Your task to perform on an android device: Is it going to rain today? Image 0: 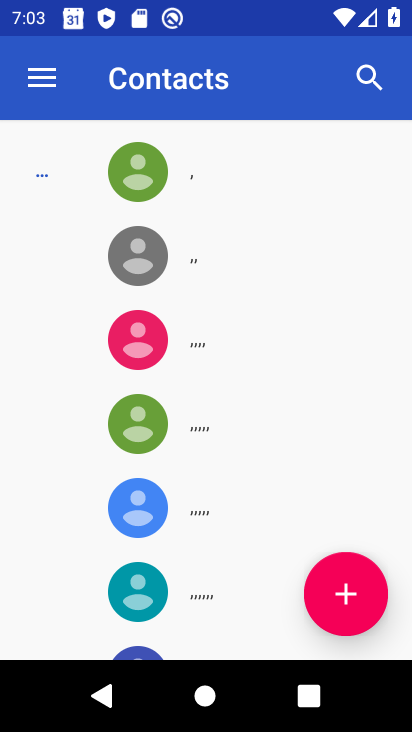
Step 0: press home button
Your task to perform on an android device: Is it going to rain today? Image 1: 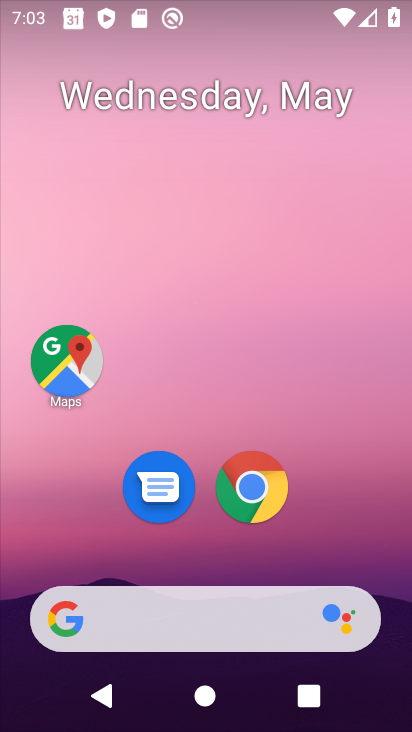
Step 1: click (46, 635)
Your task to perform on an android device: Is it going to rain today? Image 2: 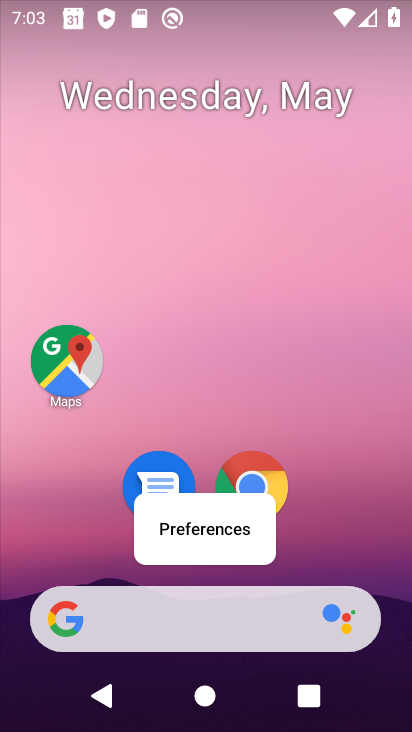
Step 2: click (51, 603)
Your task to perform on an android device: Is it going to rain today? Image 3: 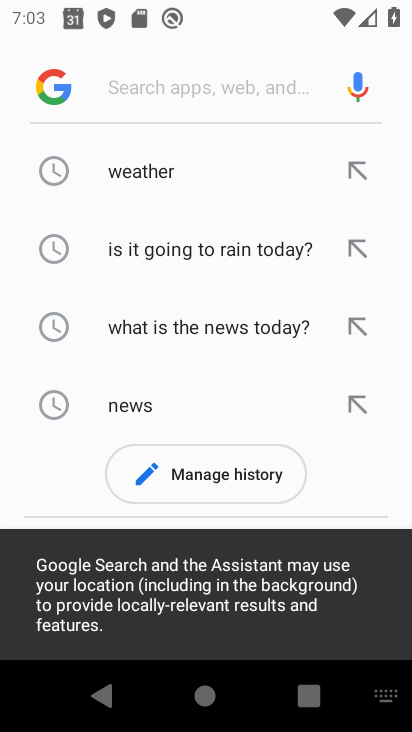
Step 3: click (82, 97)
Your task to perform on an android device: Is it going to rain today? Image 4: 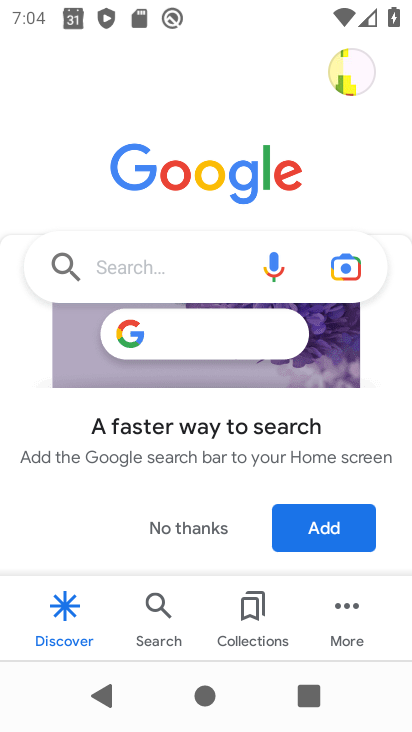
Step 4: drag from (372, 457) to (371, 323)
Your task to perform on an android device: Is it going to rain today? Image 5: 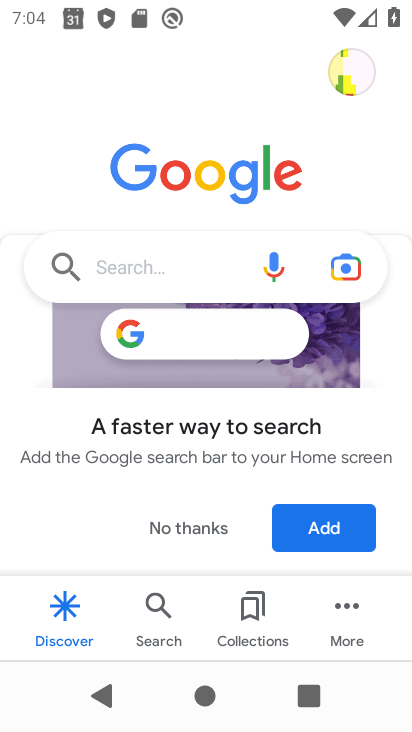
Step 5: drag from (392, 446) to (383, 310)
Your task to perform on an android device: Is it going to rain today? Image 6: 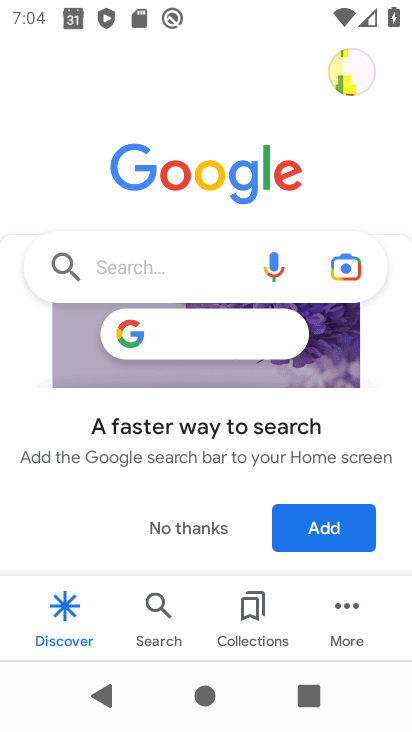
Step 6: click (210, 531)
Your task to perform on an android device: Is it going to rain today? Image 7: 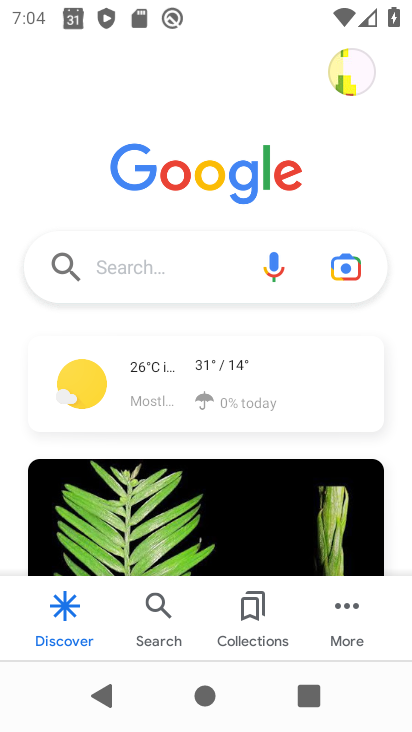
Step 7: click (233, 388)
Your task to perform on an android device: Is it going to rain today? Image 8: 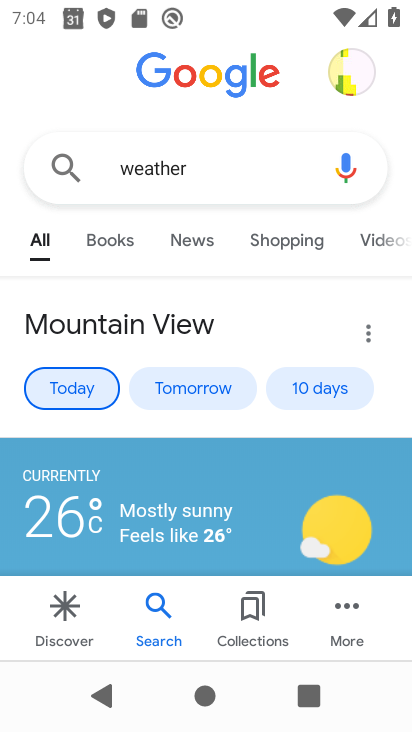
Step 8: click (336, 266)
Your task to perform on an android device: Is it going to rain today? Image 9: 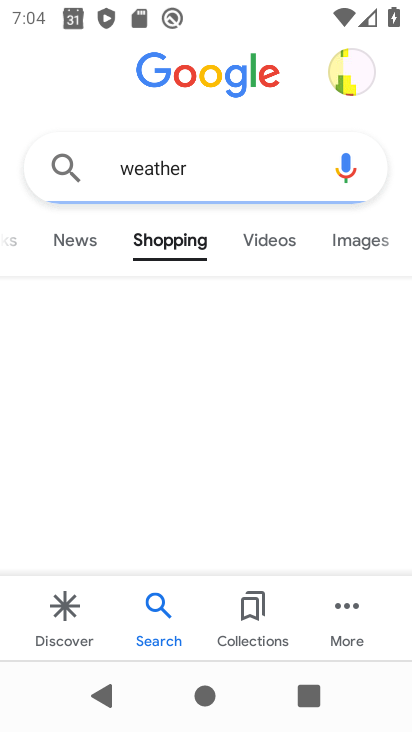
Step 9: drag from (255, 259) to (320, 258)
Your task to perform on an android device: Is it going to rain today? Image 10: 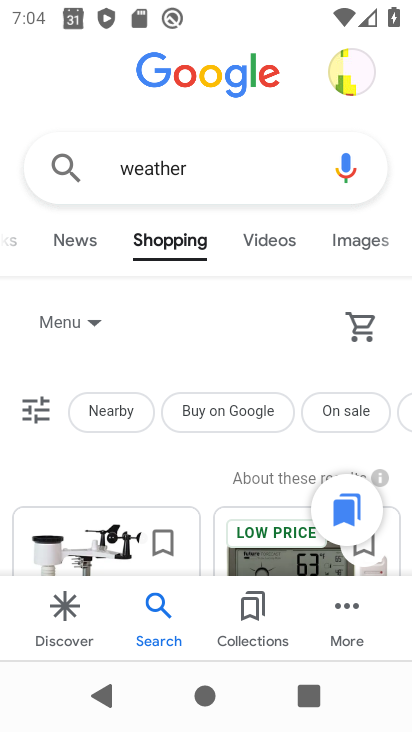
Step 10: click (50, 248)
Your task to perform on an android device: Is it going to rain today? Image 11: 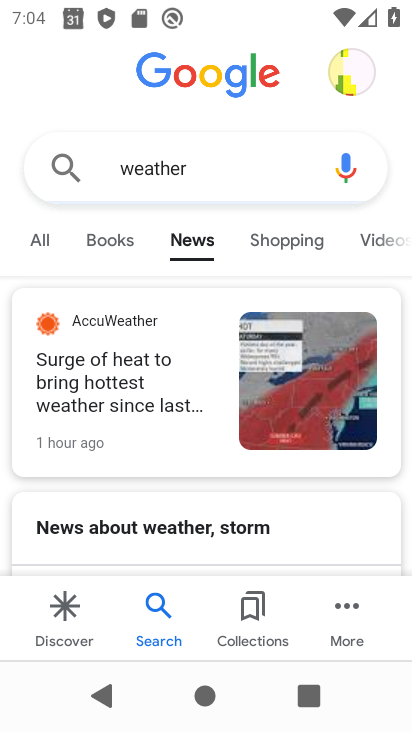
Step 11: click (49, 235)
Your task to perform on an android device: Is it going to rain today? Image 12: 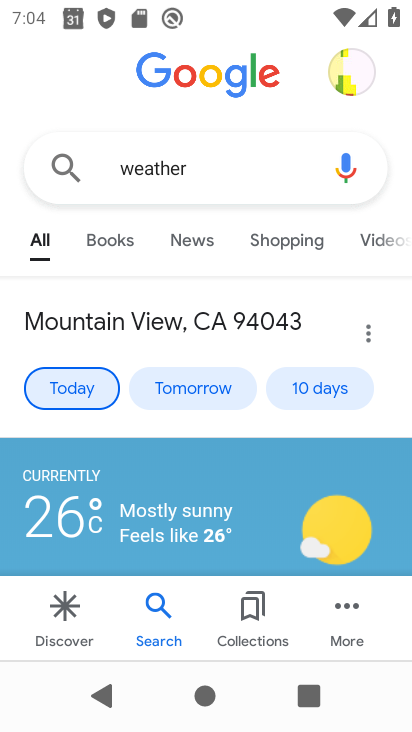
Step 12: task complete